Your task to perform on an android device: choose inbox layout in the gmail app Image 0: 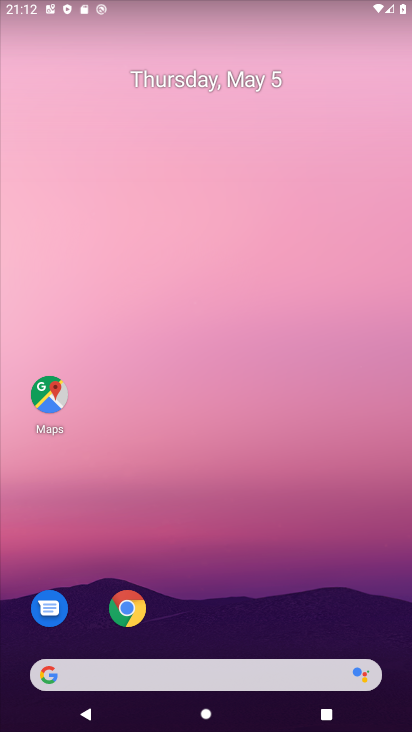
Step 0: drag from (365, 648) to (320, 29)
Your task to perform on an android device: choose inbox layout in the gmail app Image 1: 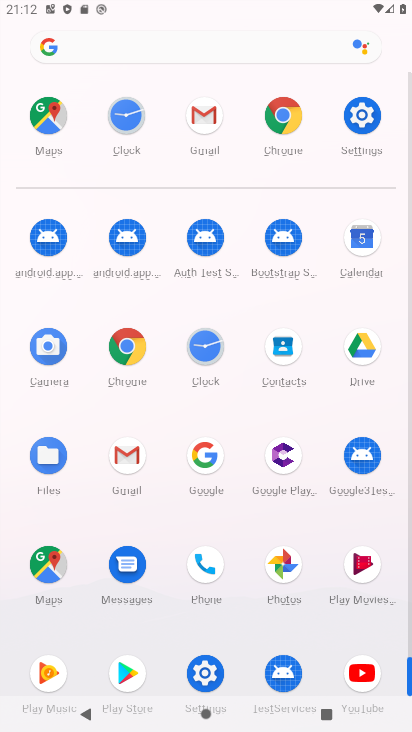
Step 1: click (122, 452)
Your task to perform on an android device: choose inbox layout in the gmail app Image 2: 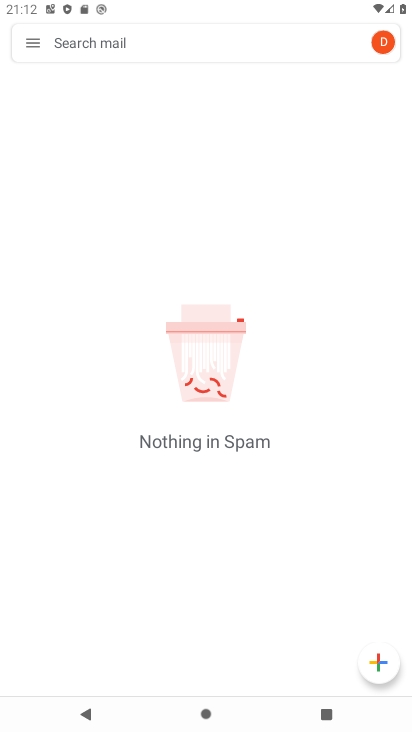
Step 2: click (28, 38)
Your task to perform on an android device: choose inbox layout in the gmail app Image 3: 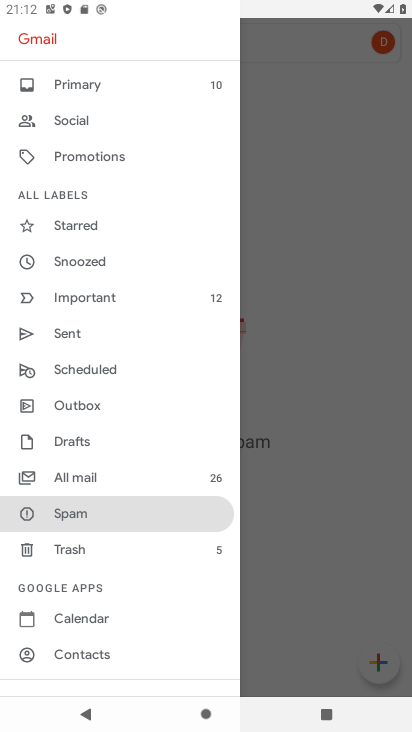
Step 3: drag from (145, 605) to (106, 128)
Your task to perform on an android device: choose inbox layout in the gmail app Image 4: 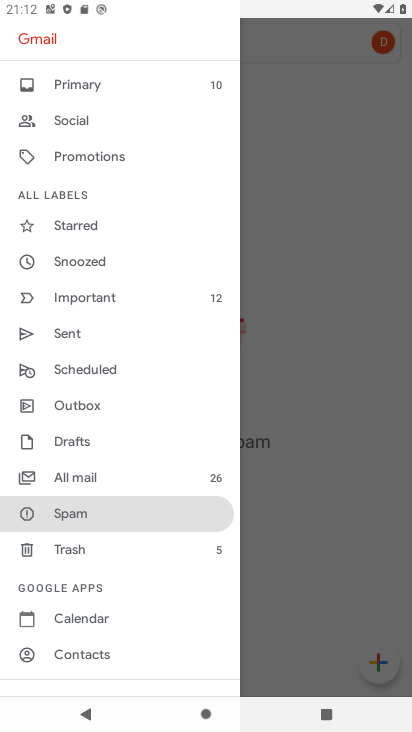
Step 4: drag from (114, 660) to (104, 132)
Your task to perform on an android device: choose inbox layout in the gmail app Image 5: 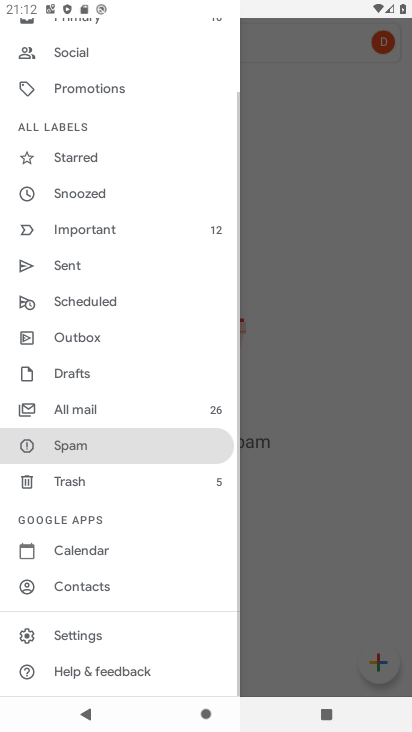
Step 5: click (89, 634)
Your task to perform on an android device: choose inbox layout in the gmail app Image 6: 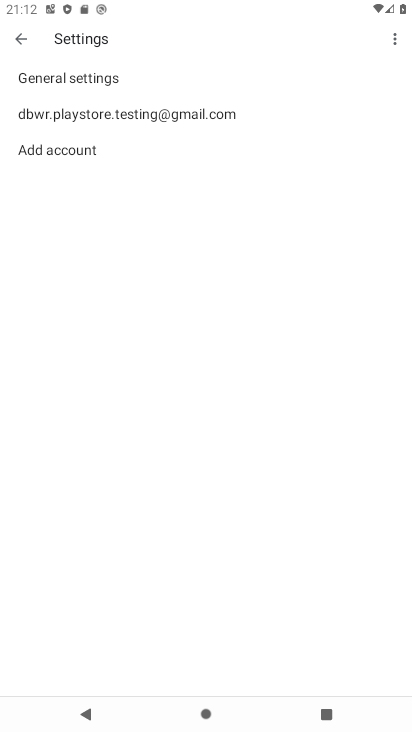
Step 6: click (189, 112)
Your task to perform on an android device: choose inbox layout in the gmail app Image 7: 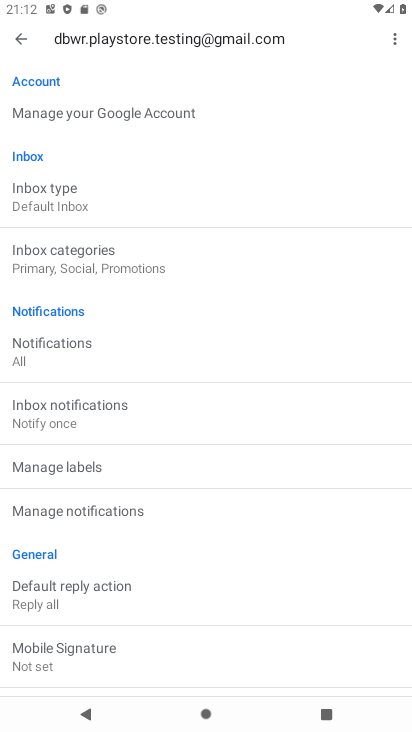
Step 7: click (63, 204)
Your task to perform on an android device: choose inbox layout in the gmail app Image 8: 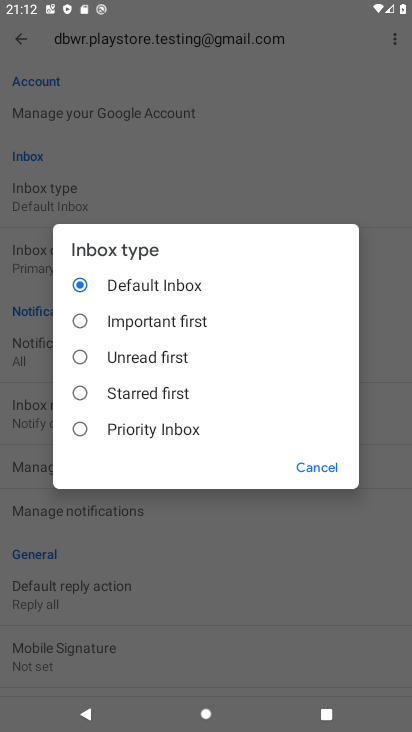
Step 8: click (80, 321)
Your task to perform on an android device: choose inbox layout in the gmail app Image 9: 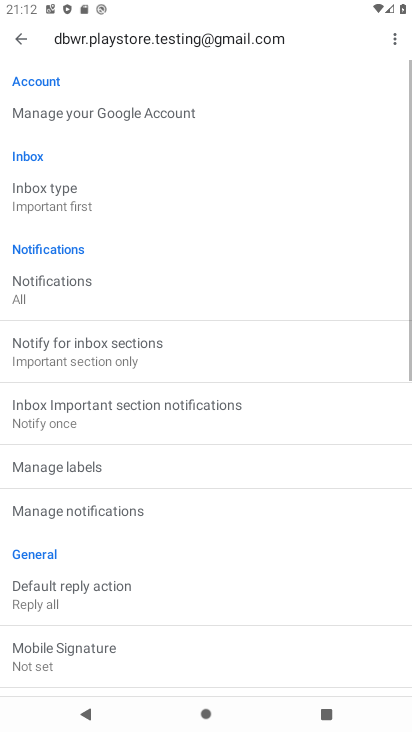
Step 9: task complete